Your task to perform on an android device: Go to sound settings Image 0: 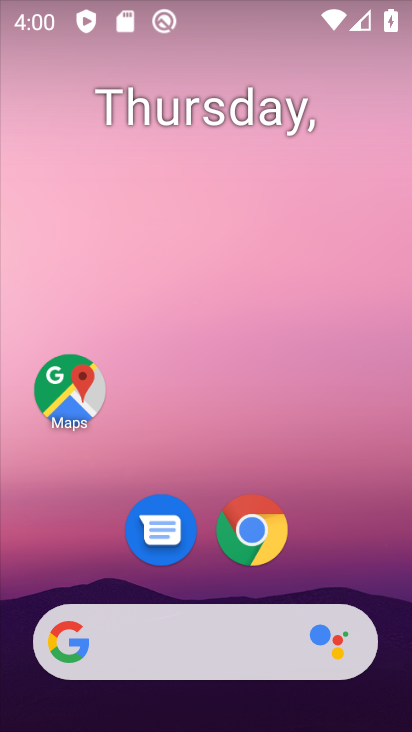
Step 0: drag from (343, 554) to (244, 70)
Your task to perform on an android device: Go to sound settings Image 1: 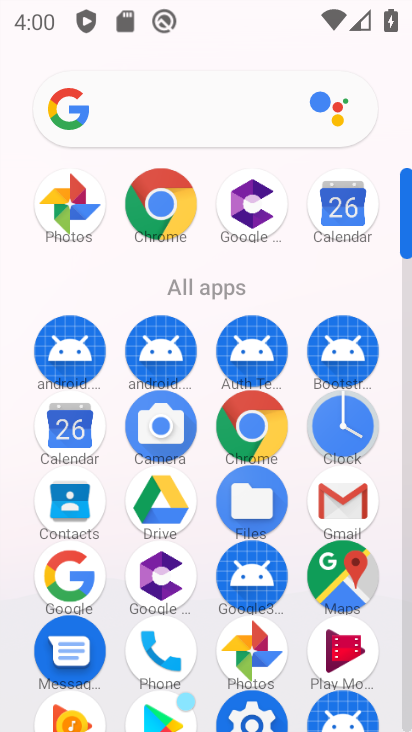
Step 1: click (258, 715)
Your task to perform on an android device: Go to sound settings Image 2: 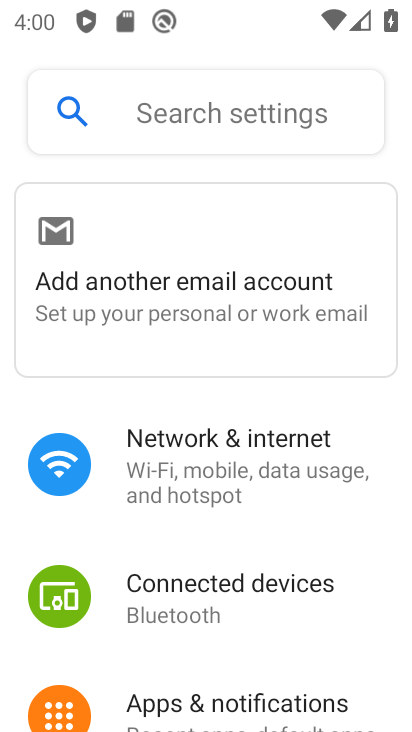
Step 2: drag from (260, 508) to (300, 144)
Your task to perform on an android device: Go to sound settings Image 3: 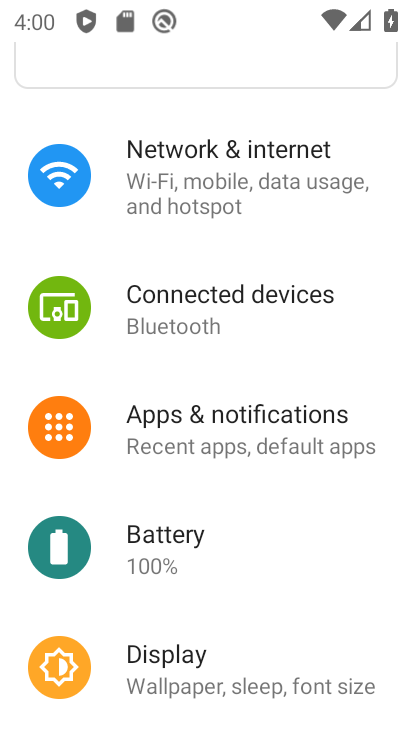
Step 3: drag from (246, 548) to (251, 223)
Your task to perform on an android device: Go to sound settings Image 4: 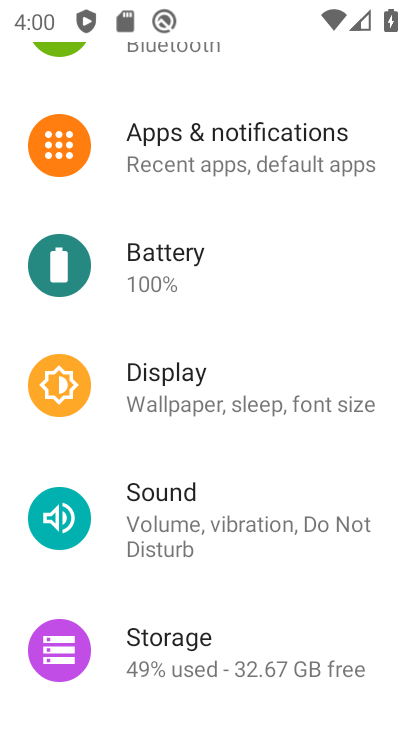
Step 4: click (185, 497)
Your task to perform on an android device: Go to sound settings Image 5: 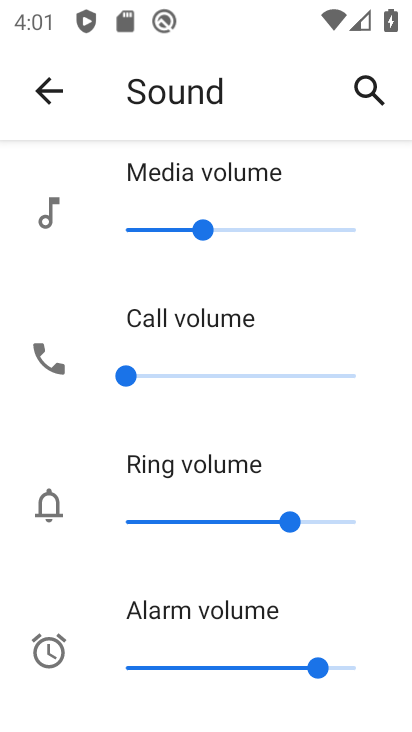
Step 5: task complete